Your task to perform on an android device: install app "Google Drive" Image 0: 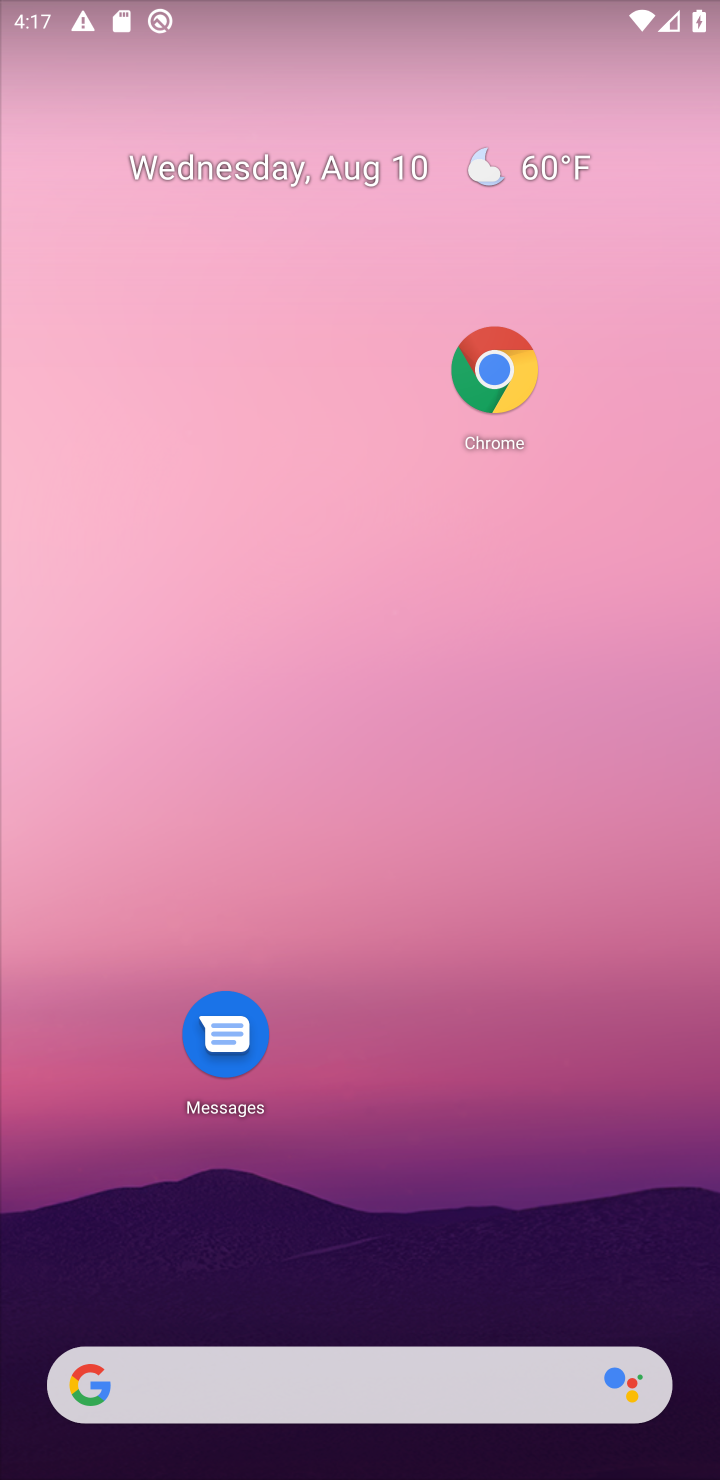
Step 0: drag from (401, 1220) to (360, 624)
Your task to perform on an android device: install app "Google Drive" Image 1: 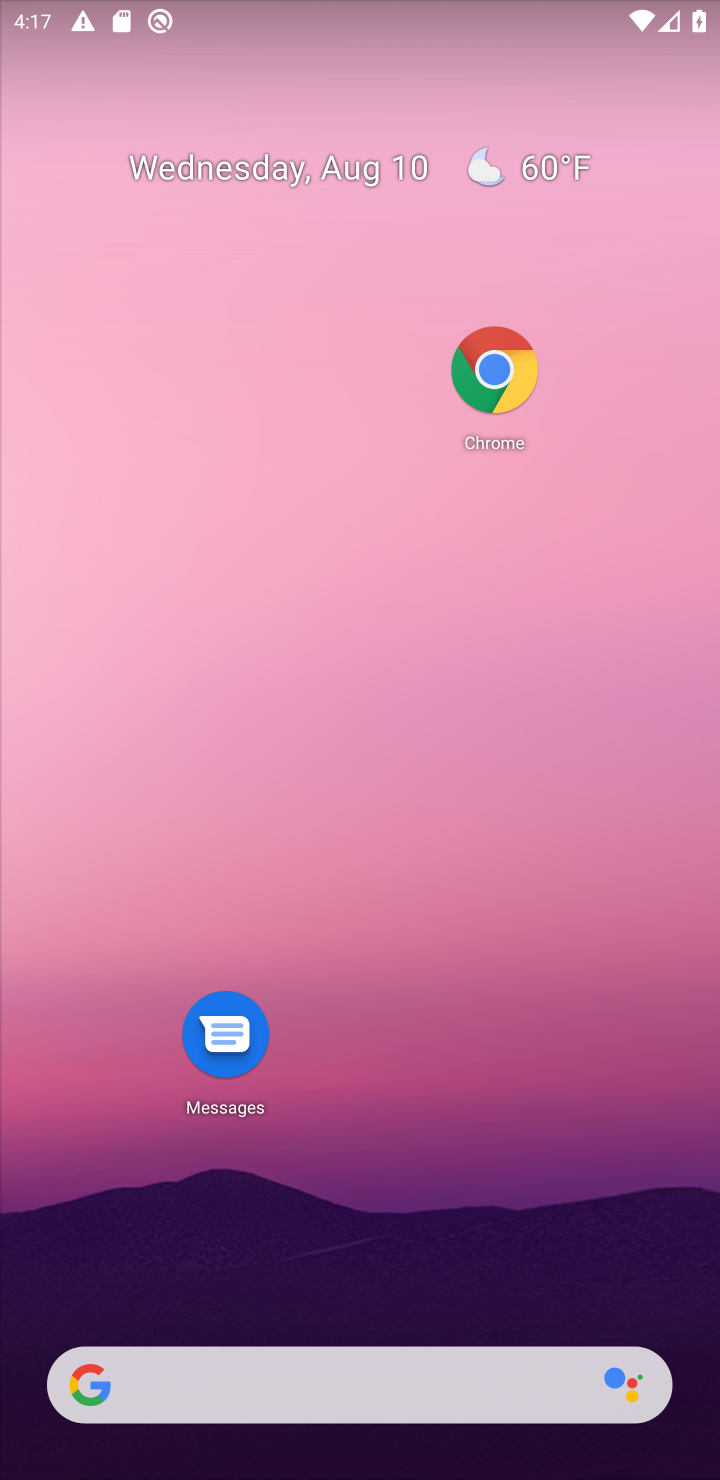
Step 1: drag from (309, 1319) to (258, 310)
Your task to perform on an android device: install app "Google Drive" Image 2: 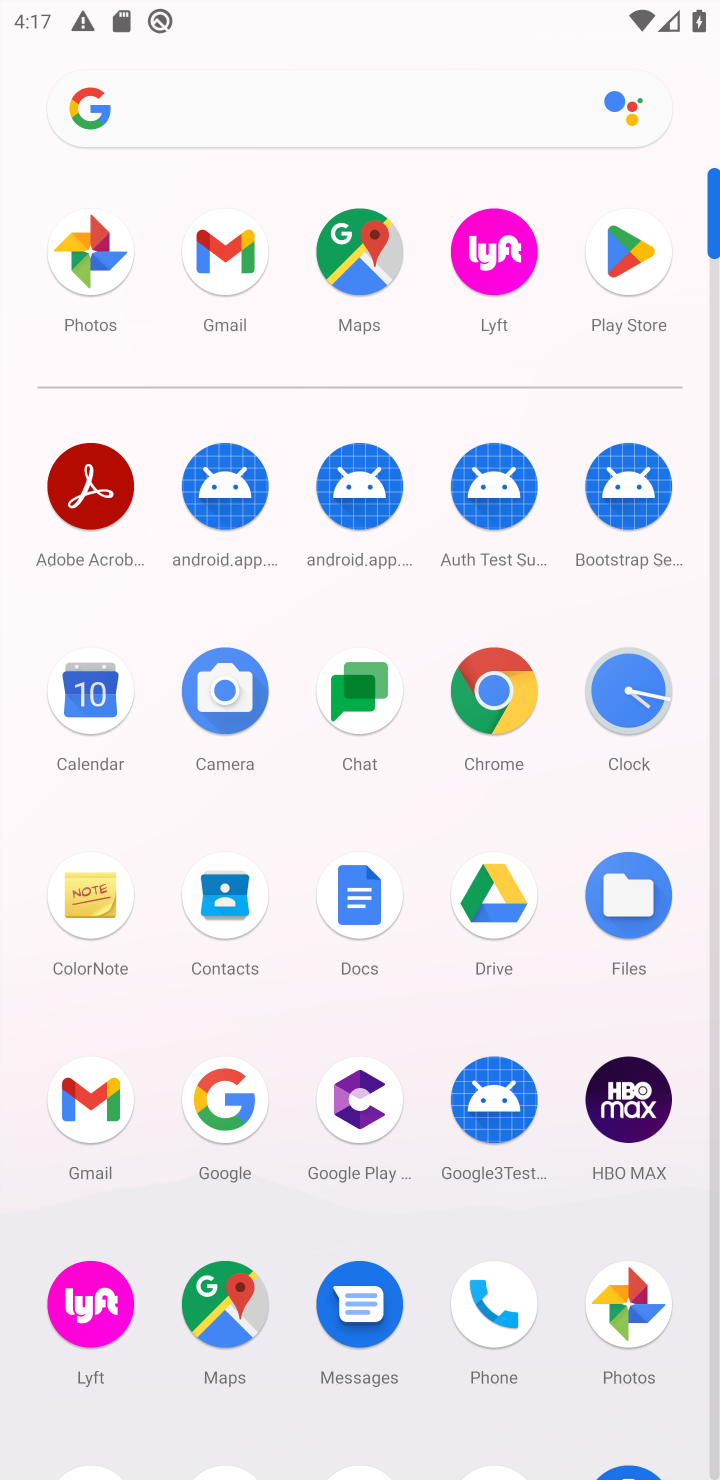
Step 2: click (606, 227)
Your task to perform on an android device: install app "Google Drive" Image 3: 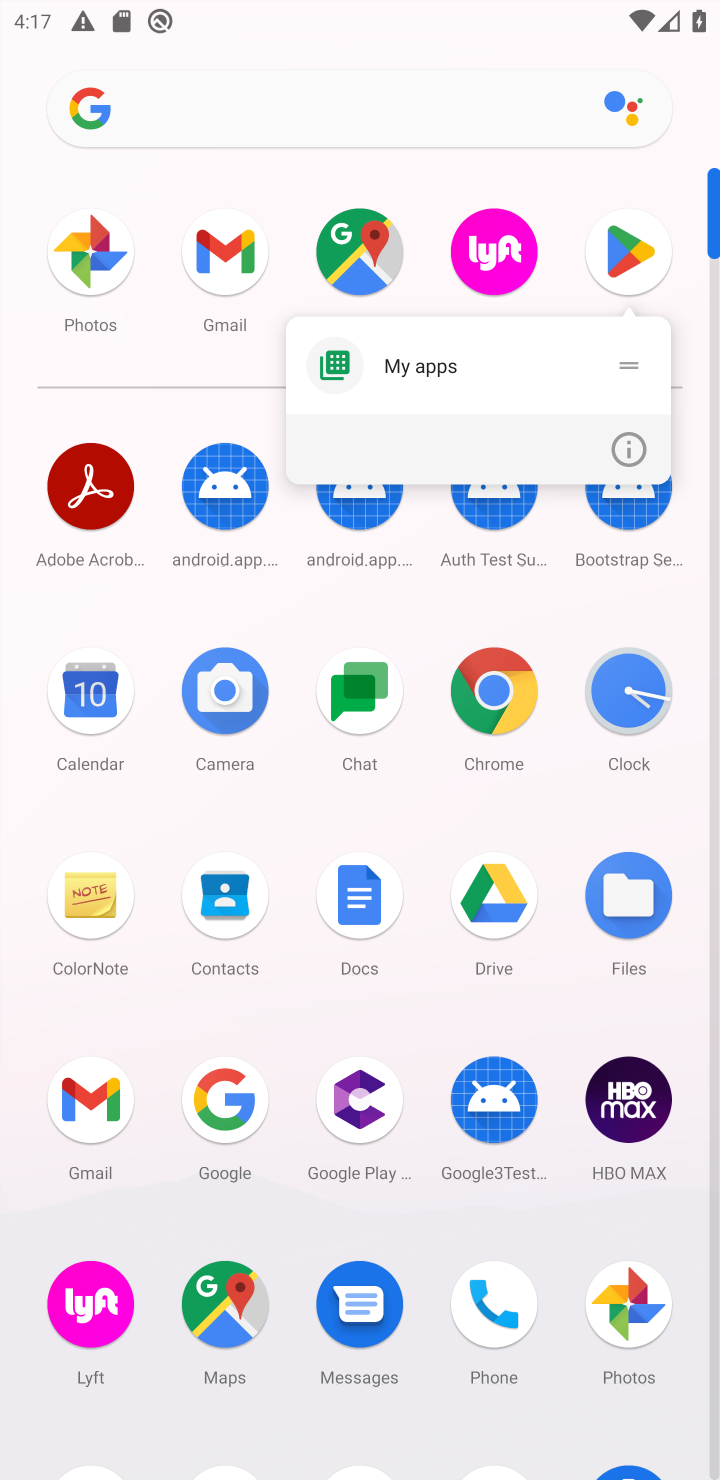
Step 3: click (648, 256)
Your task to perform on an android device: install app "Google Drive" Image 4: 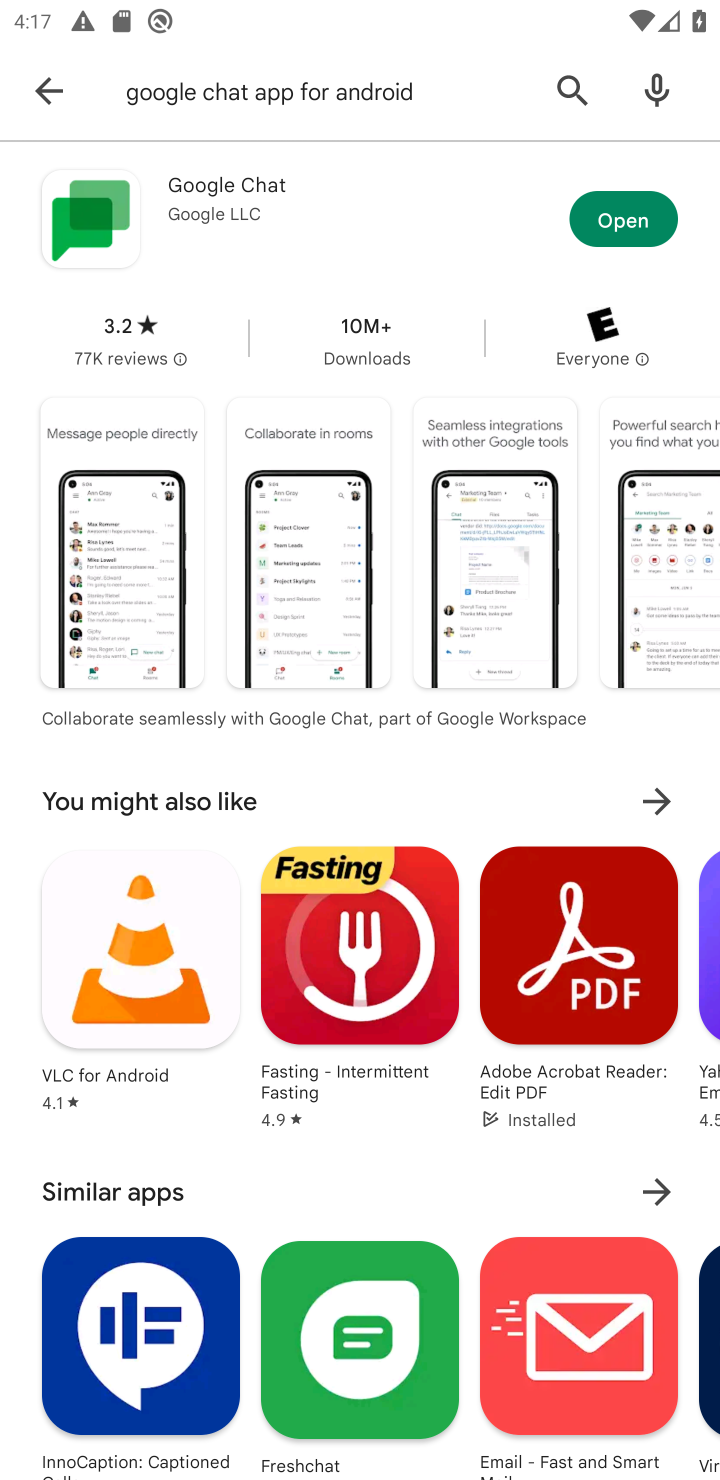
Step 4: click (36, 77)
Your task to perform on an android device: install app "Google Drive" Image 5: 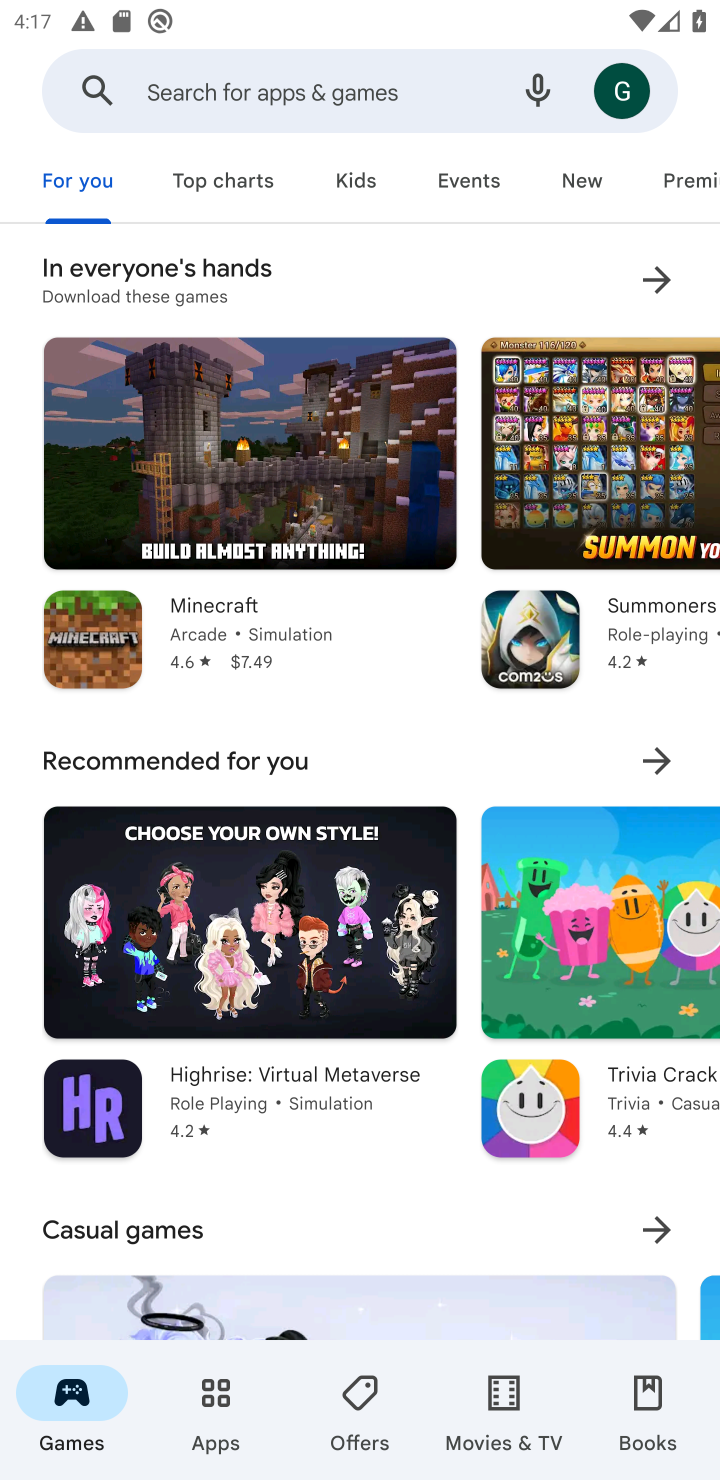
Step 5: click (426, 72)
Your task to perform on an android device: install app "Google Drive" Image 6: 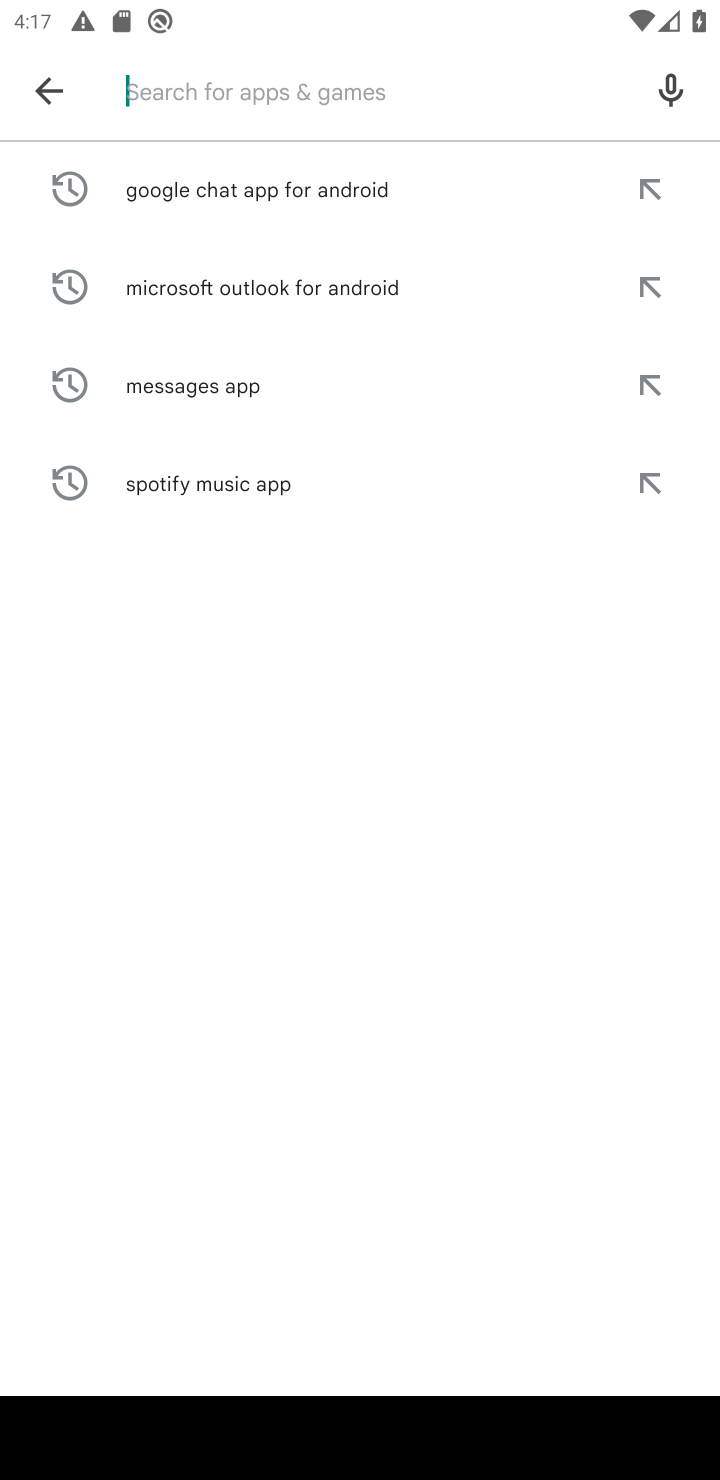
Step 6: type "Google Drive "
Your task to perform on an android device: install app "Google Drive" Image 7: 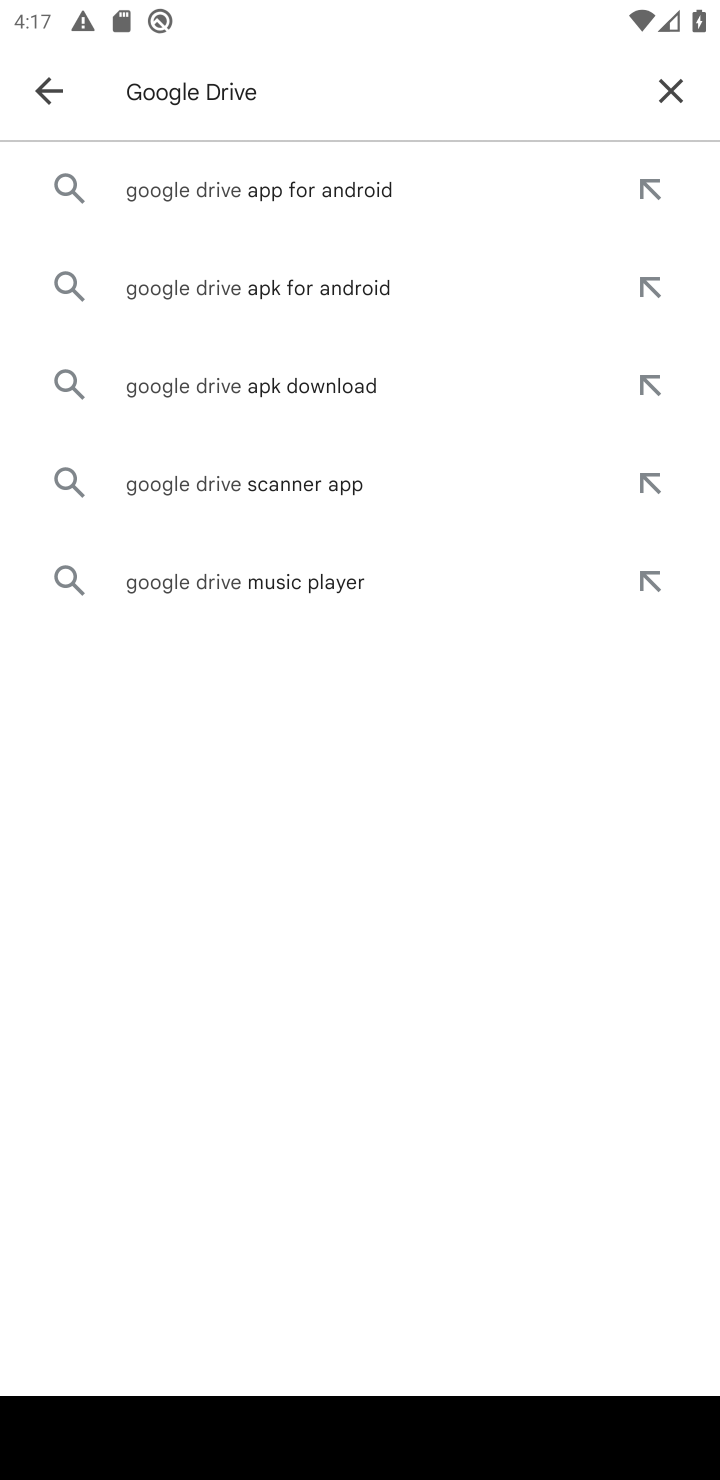
Step 7: click (288, 212)
Your task to perform on an android device: install app "Google Drive" Image 8: 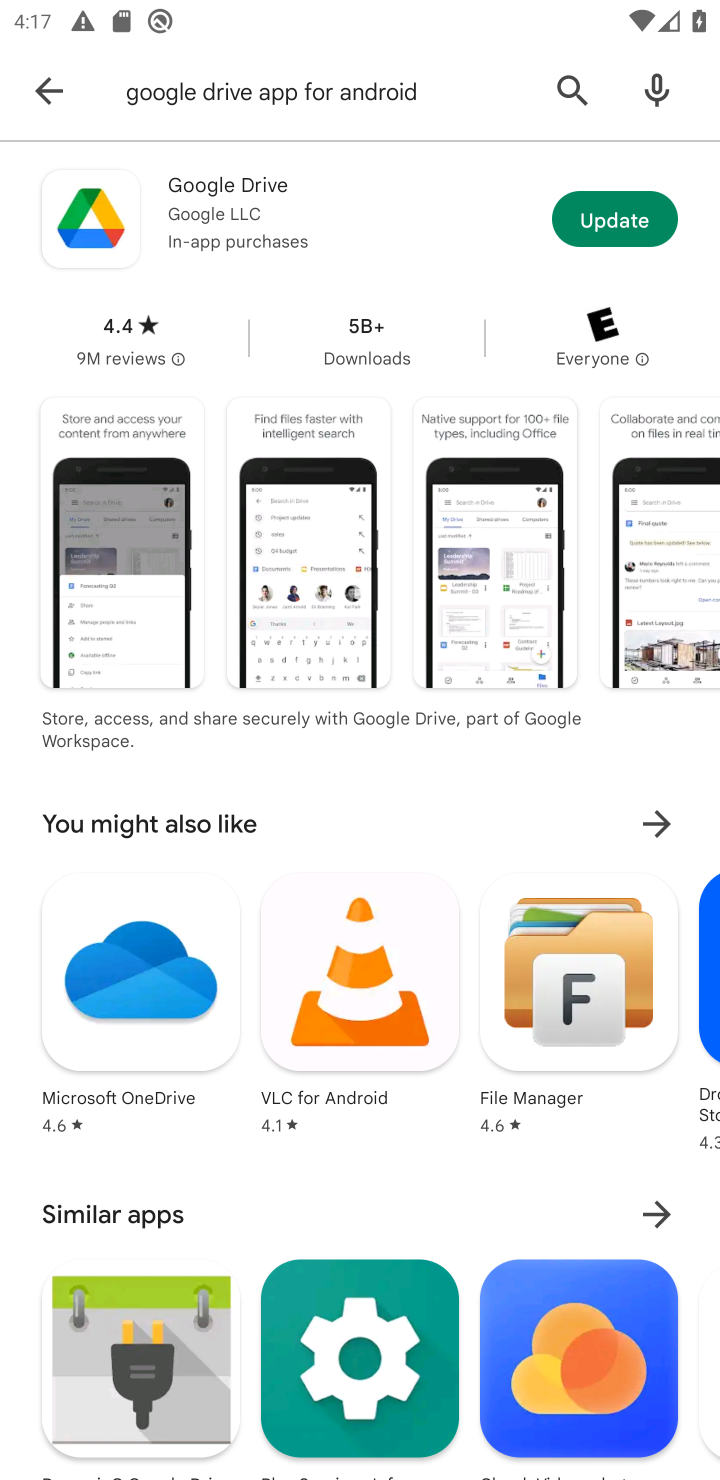
Step 8: click (606, 213)
Your task to perform on an android device: install app "Google Drive" Image 9: 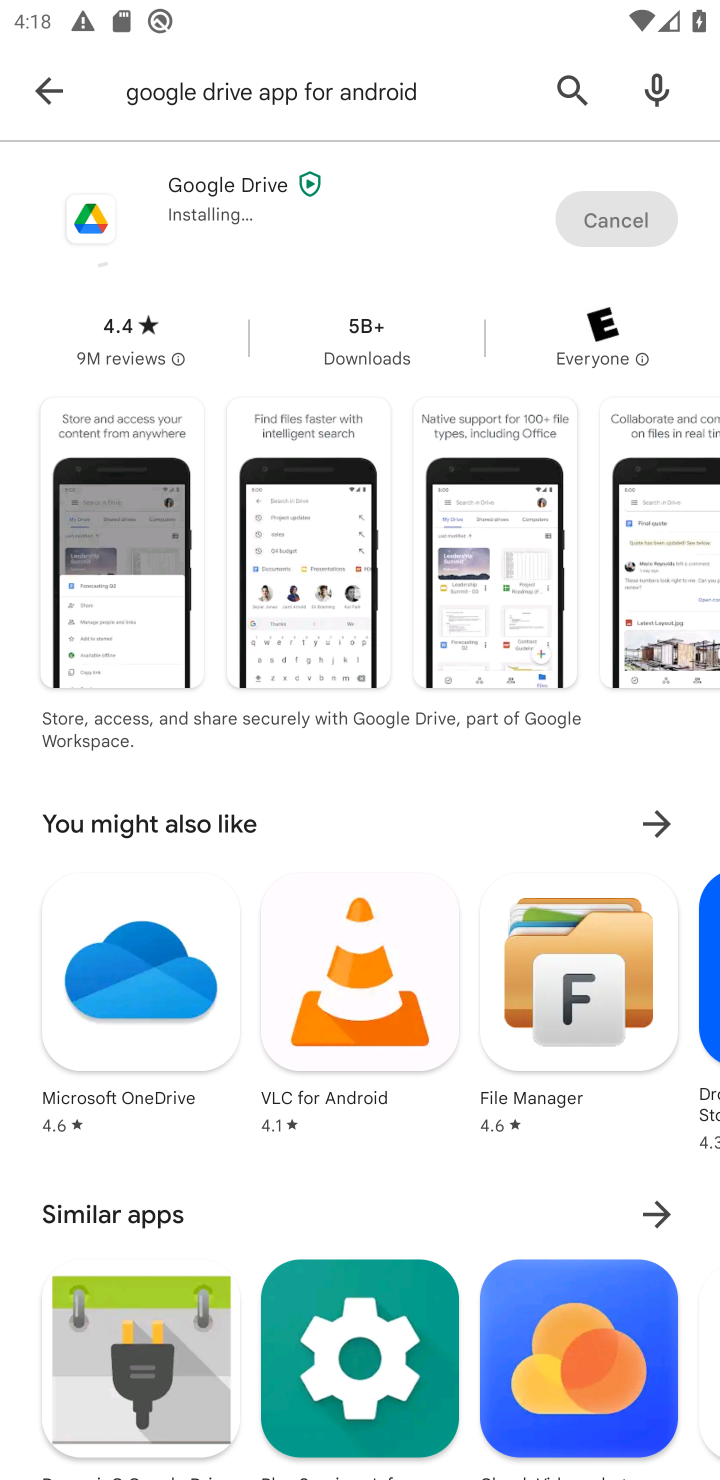
Step 9: task complete